Your task to perform on an android device: Open CNN.com Image 0: 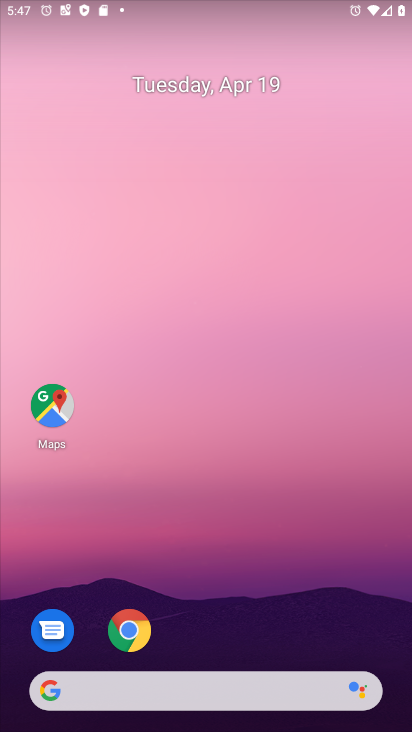
Step 0: type "CNN.com"
Your task to perform on an android device: Open CNN.com Image 1: 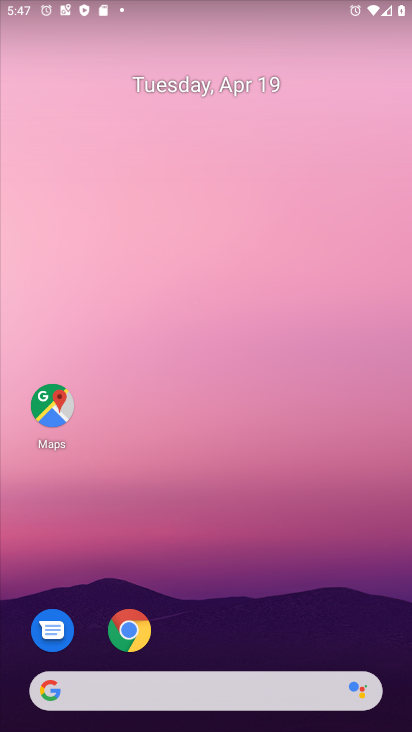
Step 1: click (129, 640)
Your task to perform on an android device: Open CNN.com Image 2: 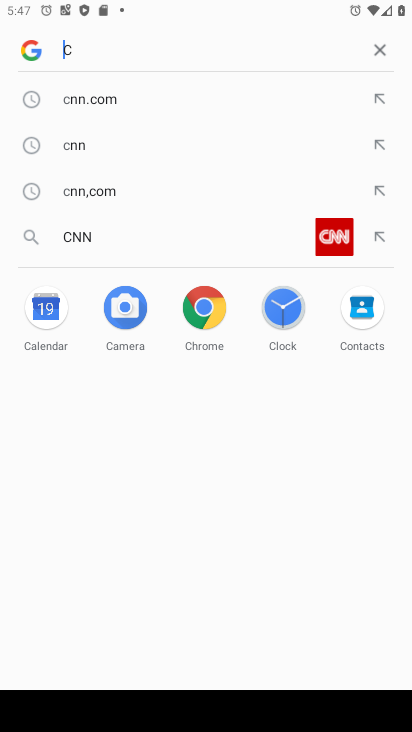
Step 2: click (385, 48)
Your task to perform on an android device: Open CNN.com Image 3: 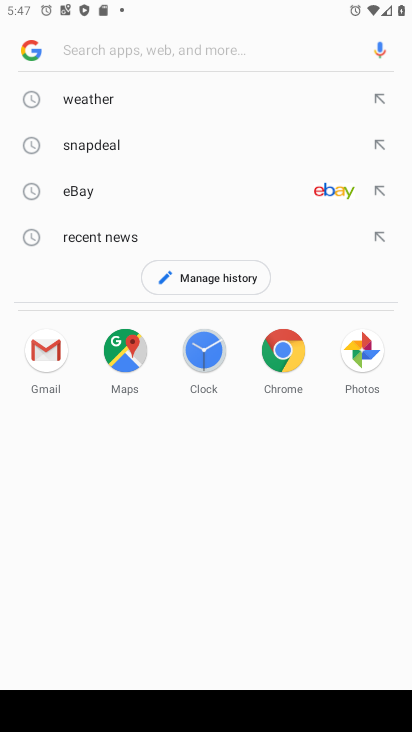
Step 3: click (247, 49)
Your task to perform on an android device: Open CNN.com Image 4: 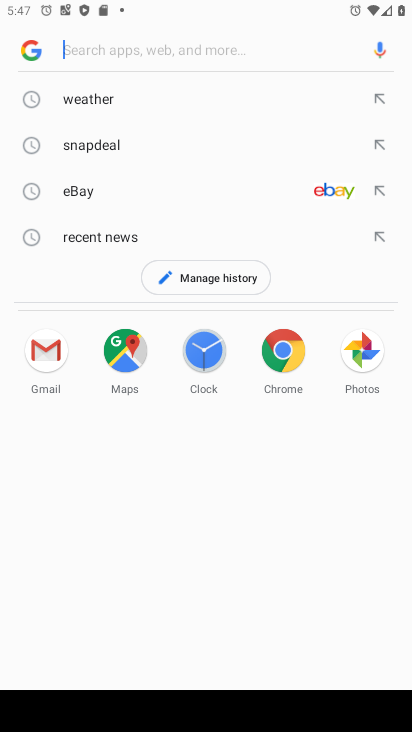
Step 4: click (243, 49)
Your task to perform on an android device: Open CNN.com Image 5: 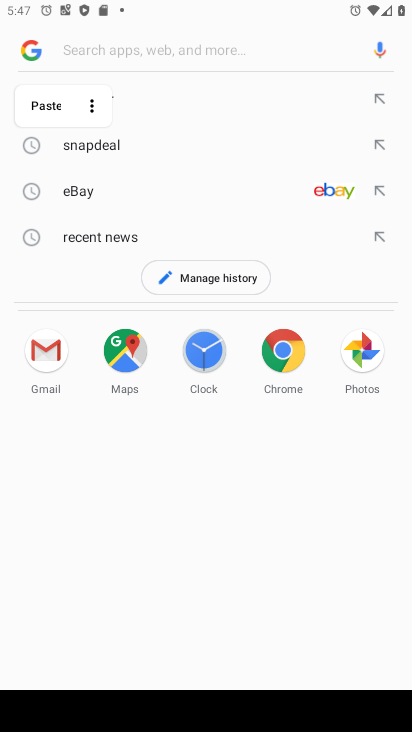
Step 5: type "CNN.com"
Your task to perform on an android device: Open CNN.com Image 6: 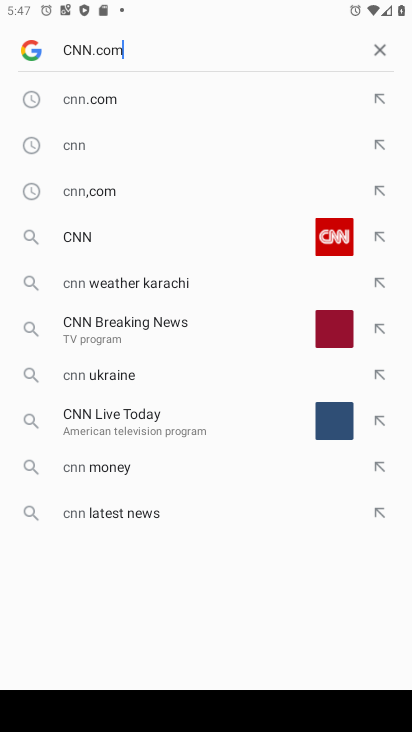
Step 6: type ""
Your task to perform on an android device: Open CNN.com Image 7: 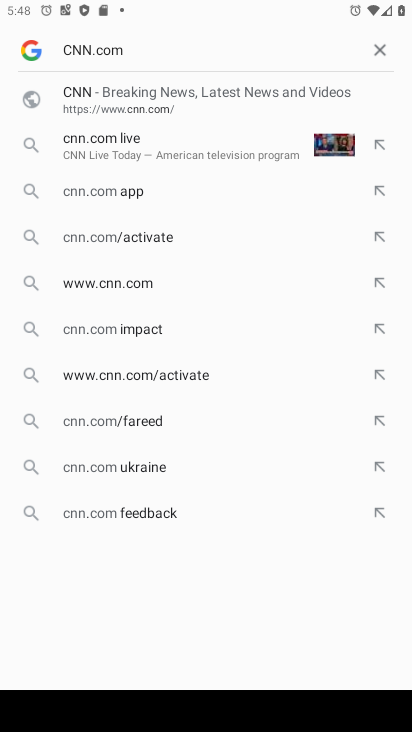
Step 7: click (135, 88)
Your task to perform on an android device: Open CNN.com Image 8: 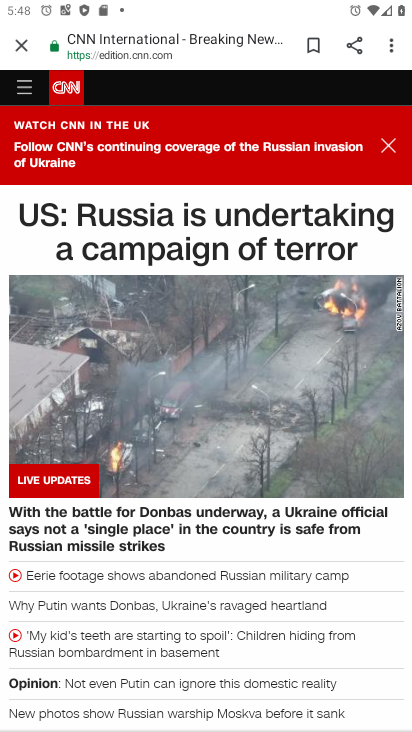
Step 8: task complete